Your task to perform on an android device: open app "LiveIn - Share Your Moment" Image 0: 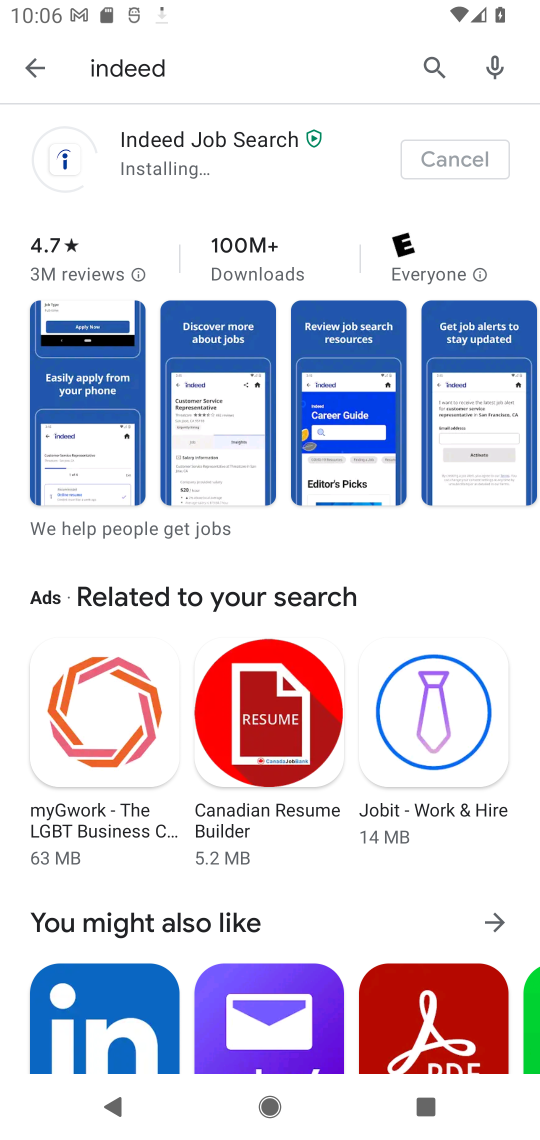
Step 0: press home button
Your task to perform on an android device: open app "LiveIn - Share Your Moment" Image 1: 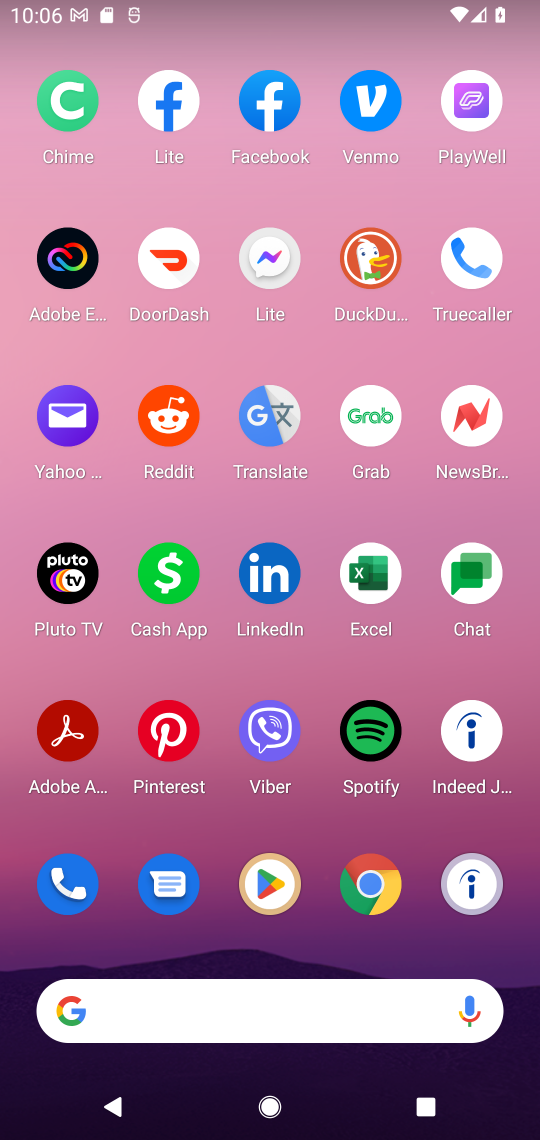
Step 1: click (287, 888)
Your task to perform on an android device: open app "LiveIn - Share Your Moment" Image 2: 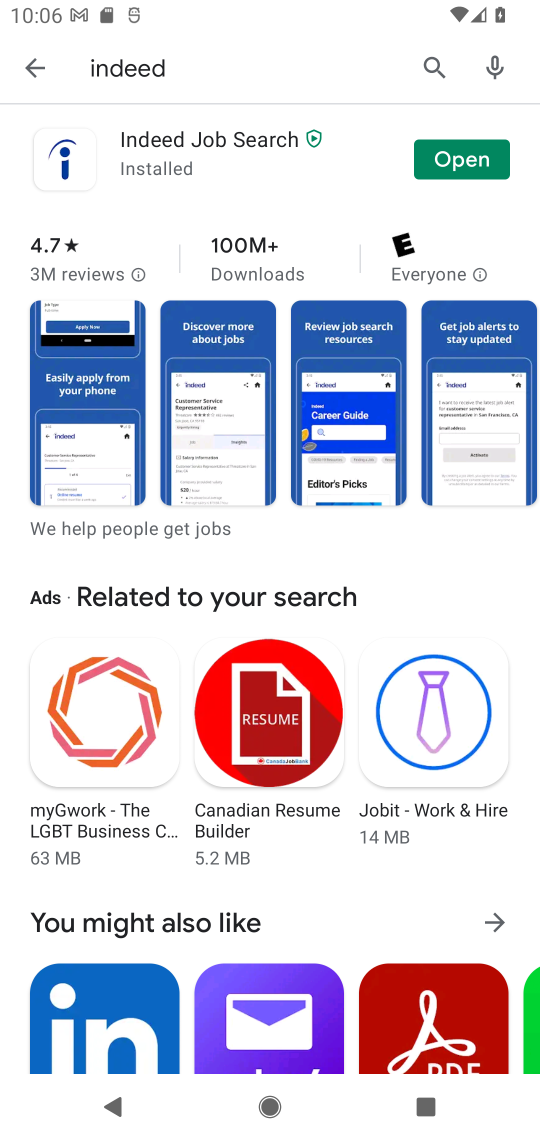
Step 2: click (428, 80)
Your task to perform on an android device: open app "LiveIn - Share Your Moment" Image 3: 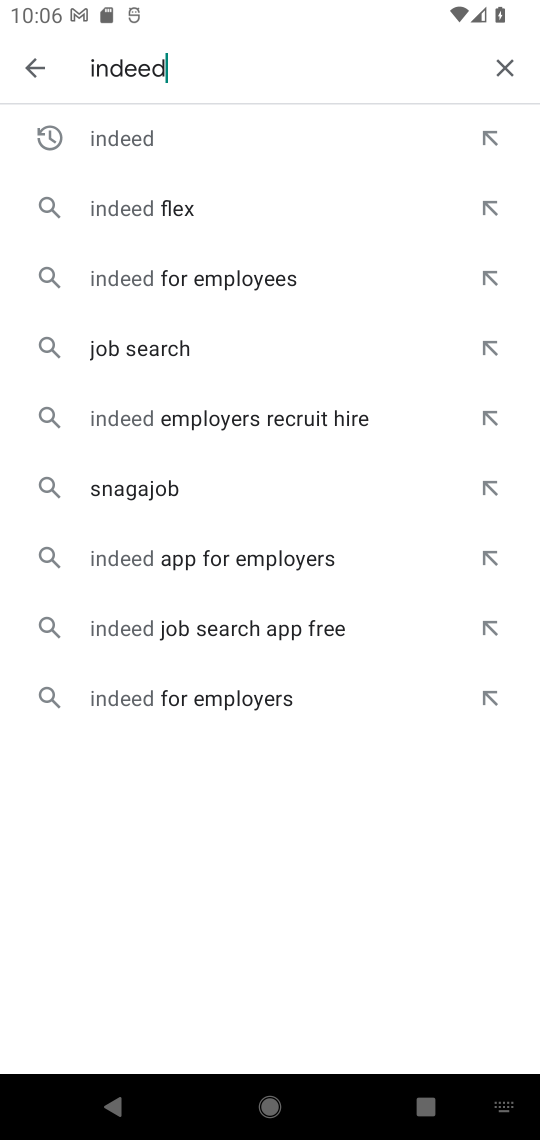
Step 3: click (494, 83)
Your task to perform on an android device: open app "LiveIn - Share Your Moment" Image 4: 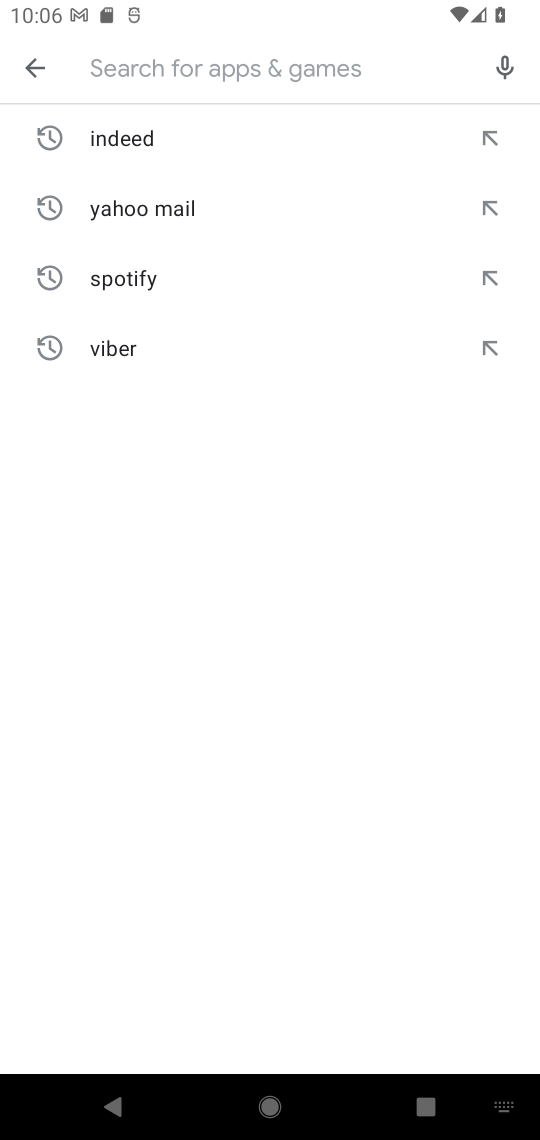
Step 4: type "livein"
Your task to perform on an android device: open app "LiveIn - Share Your Moment" Image 5: 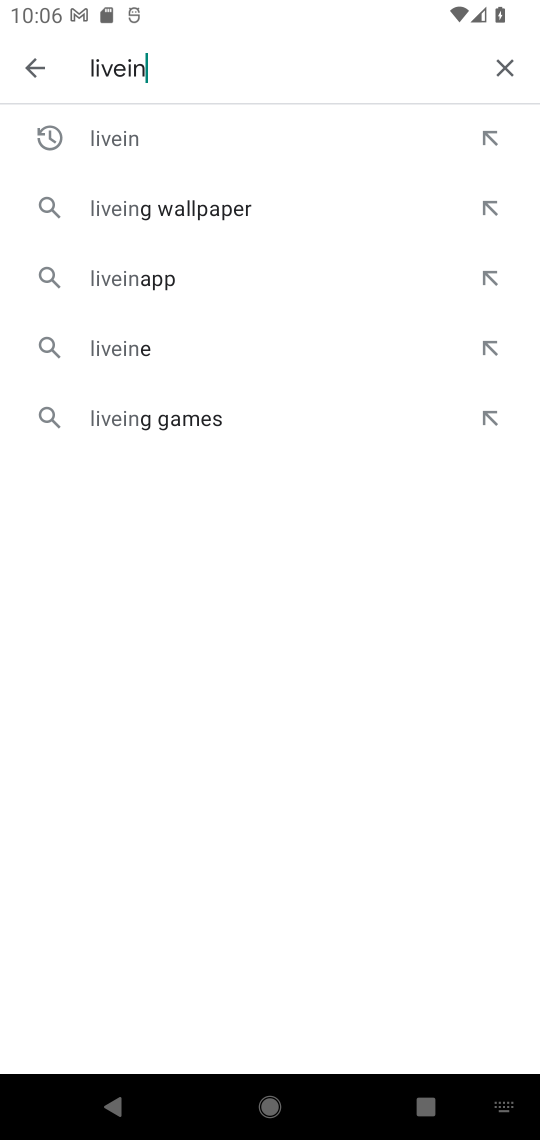
Step 5: click (317, 132)
Your task to perform on an android device: open app "LiveIn - Share Your Moment" Image 6: 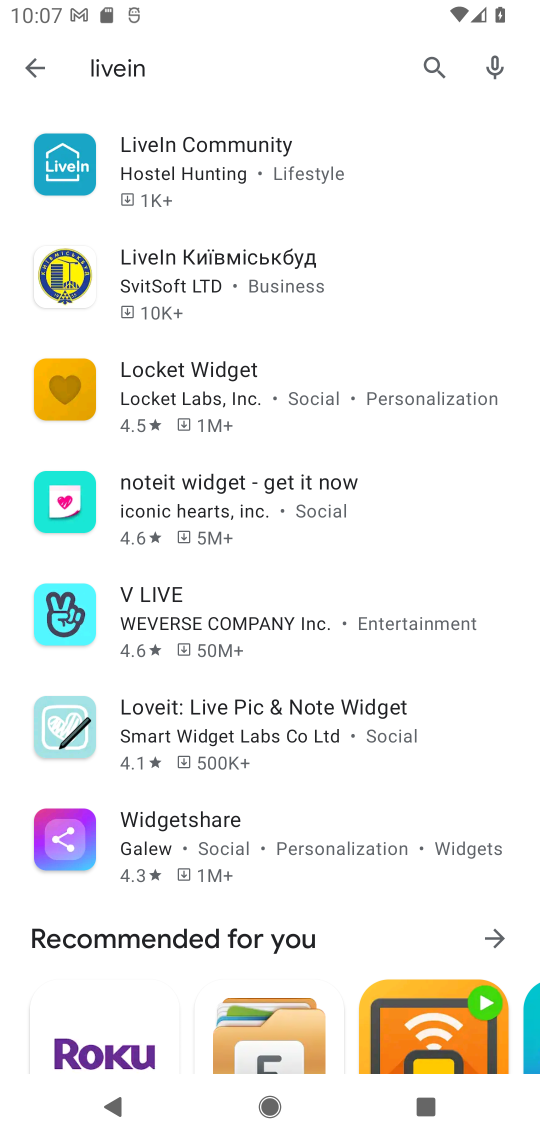
Step 6: click (364, 164)
Your task to perform on an android device: open app "LiveIn - Share Your Moment" Image 7: 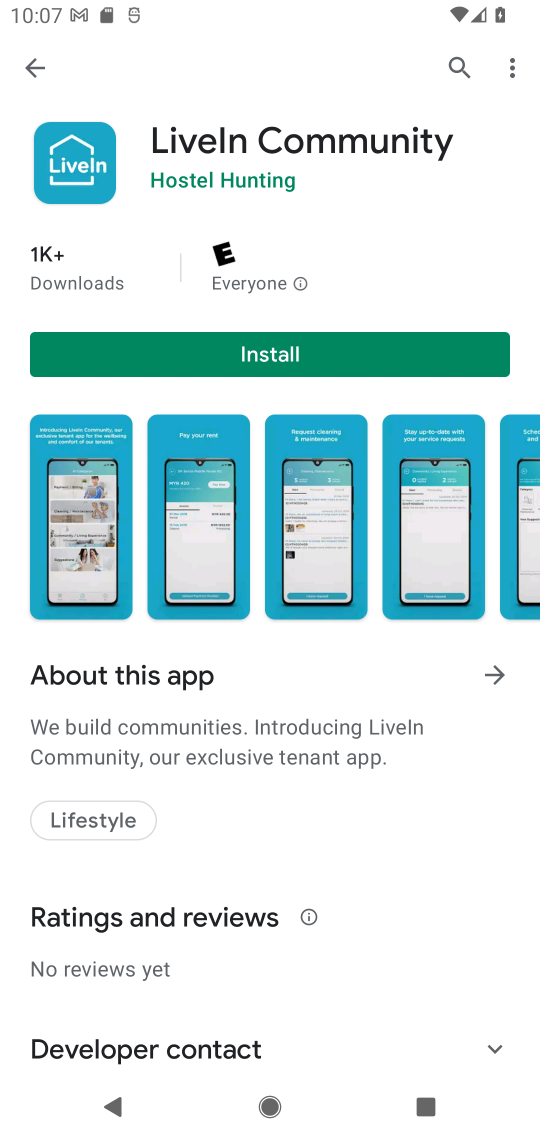
Step 7: click (474, 338)
Your task to perform on an android device: open app "LiveIn - Share Your Moment" Image 8: 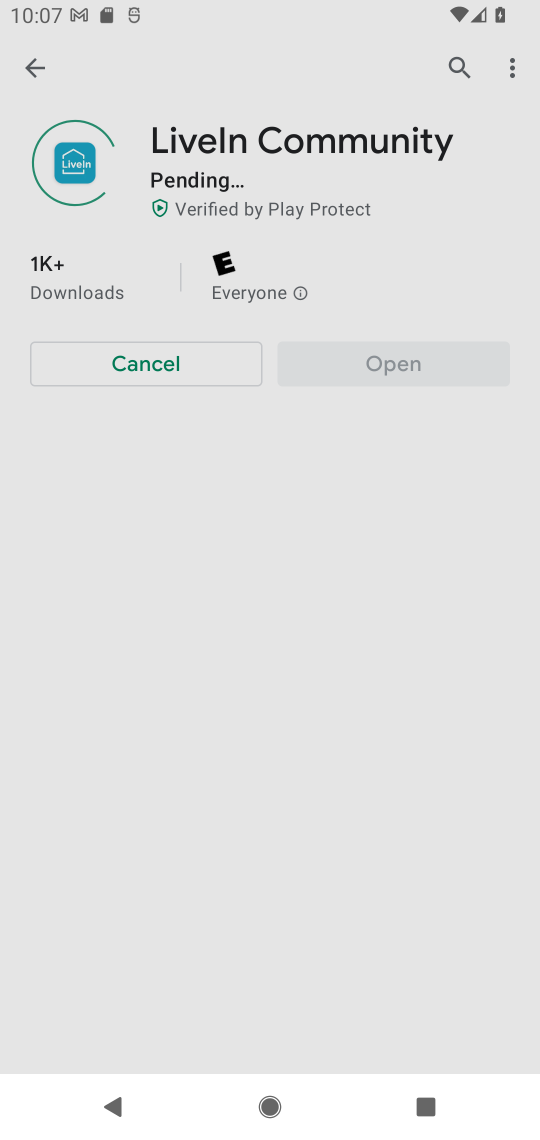
Step 8: task complete